Your task to perform on an android device: turn on wifi Image 0: 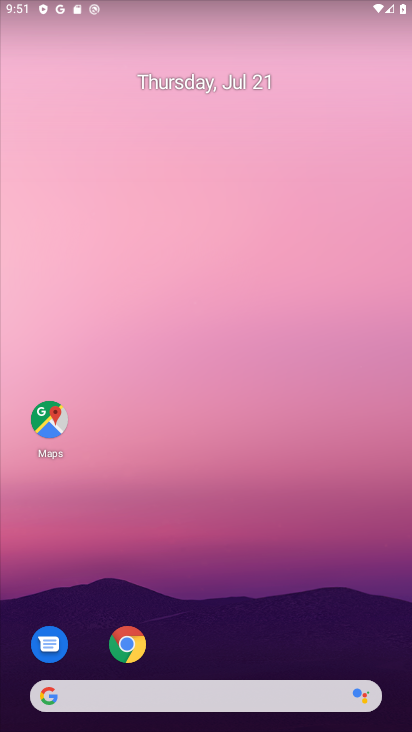
Step 0: press home button
Your task to perform on an android device: turn on wifi Image 1: 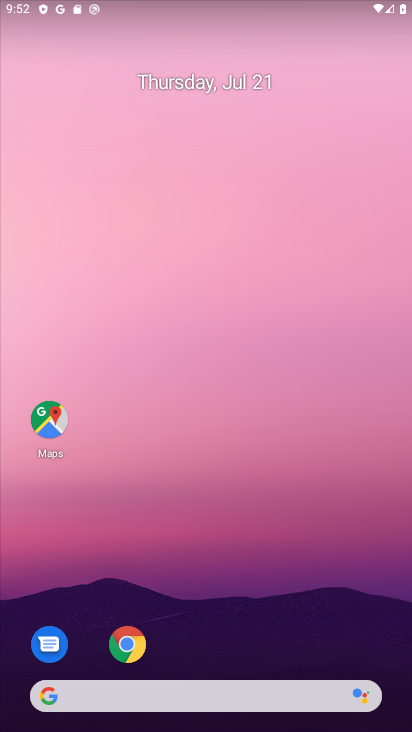
Step 1: task complete